Your task to perform on an android device: turn on wifi Image 0: 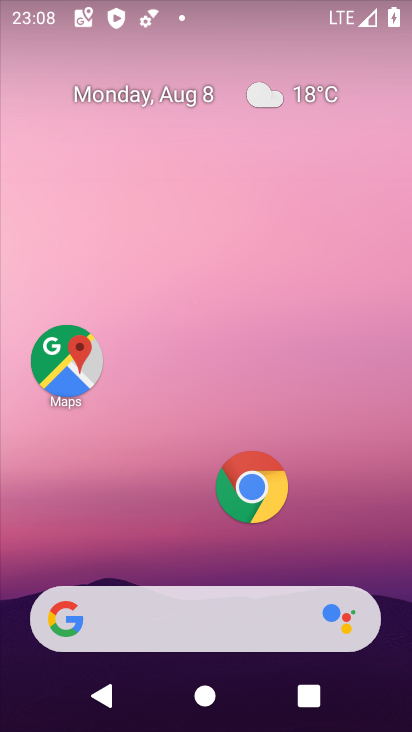
Step 0: drag from (213, 566) to (179, 58)
Your task to perform on an android device: turn on wifi Image 1: 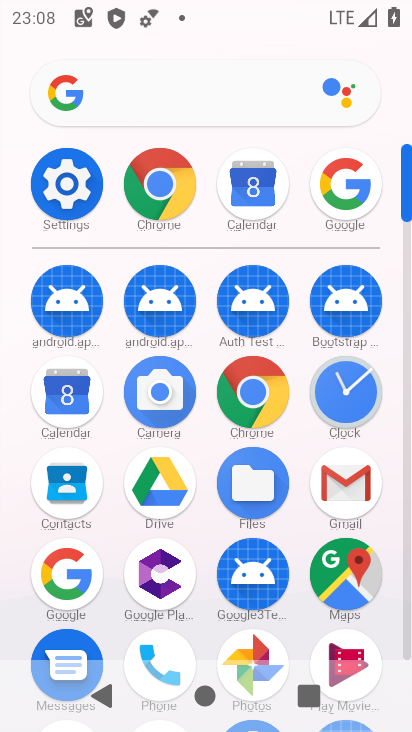
Step 1: click (71, 188)
Your task to perform on an android device: turn on wifi Image 2: 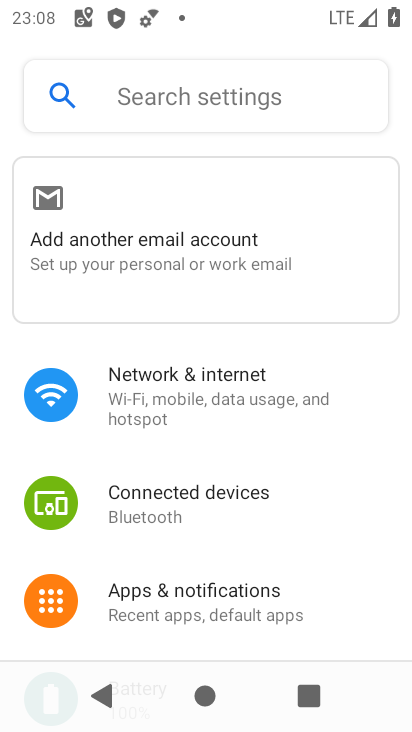
Step 2: click (146, 392)
Your task to perform on an android device: turn on wifi Image 3: 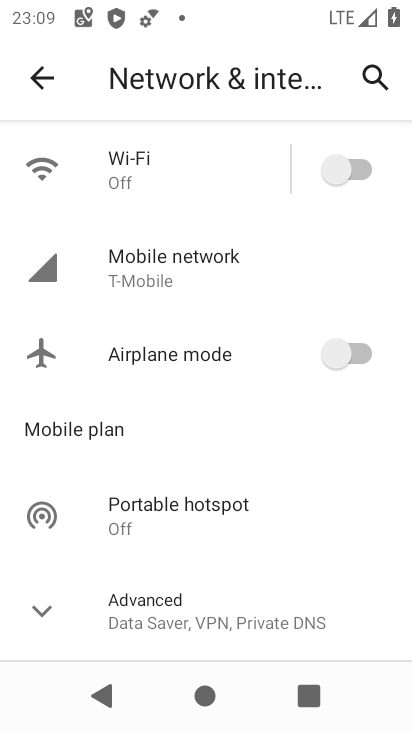
Step 3: click (352, 167)
Your task to perform on an android device: turn on wifi Image 4: 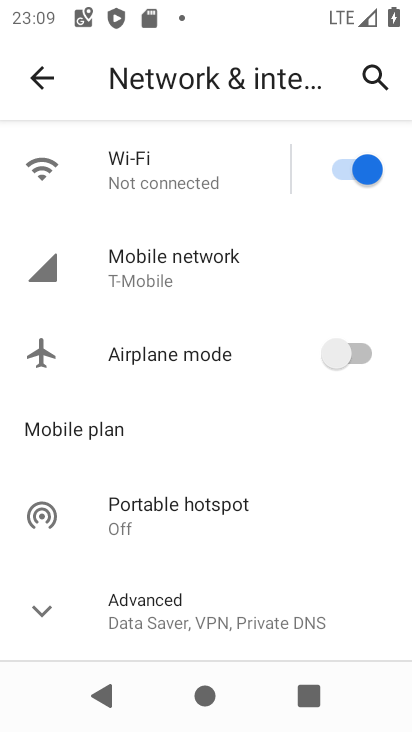
Step 4: task complete